Your task to perform on an android device: open the mobile data screen to see how much data has been used Image 0: 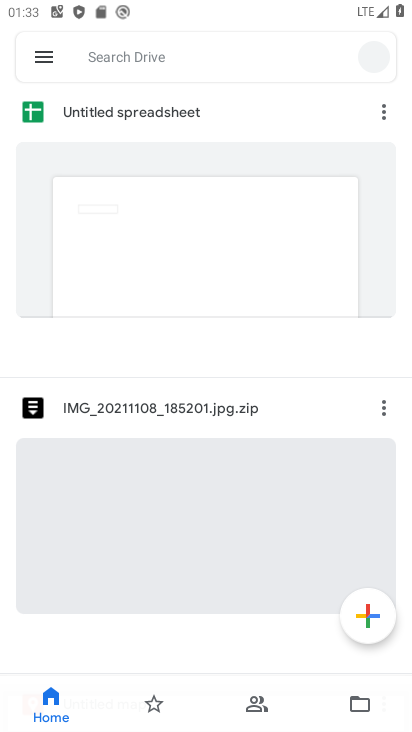
Step 0: press home button
Your task to perform on an android device: open the mobile data screen to see how much data has been used Image 1: 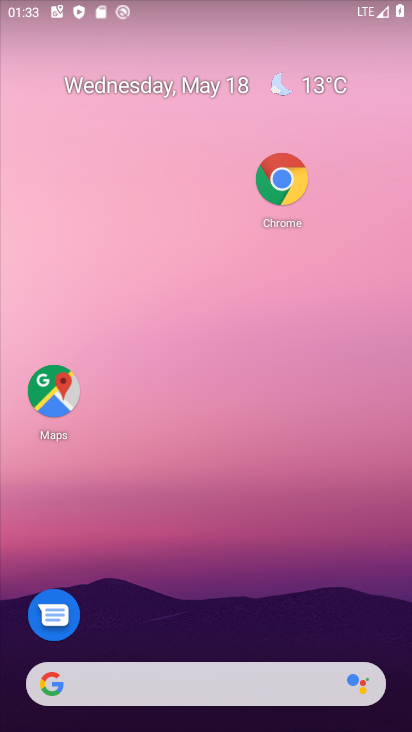
Step 1: drag from (151, 686) to (279, 291)
Your task to perform on an android device: open the mobile data screen to see how much data has been used Image 2: 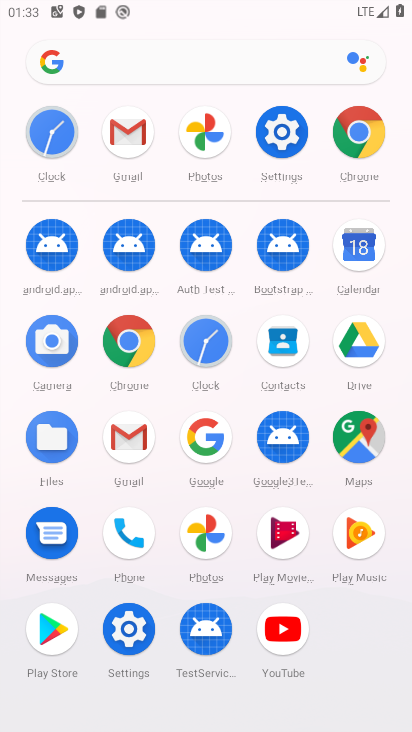
Step 2: click (279, 133)
Your task to perform on an android device: open the mobile data screen to see how much data has been used Image 3: 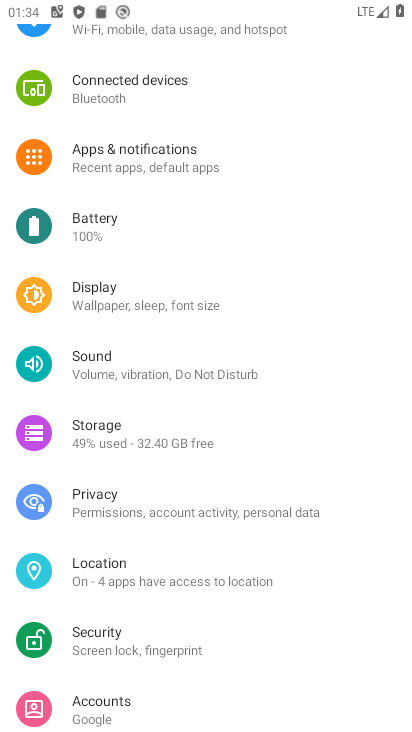
Step 3: drag from (307, 105) to (175, 553)
Your task to perform on an android device: open the mobile data screen to see how much data has been used Image 4: 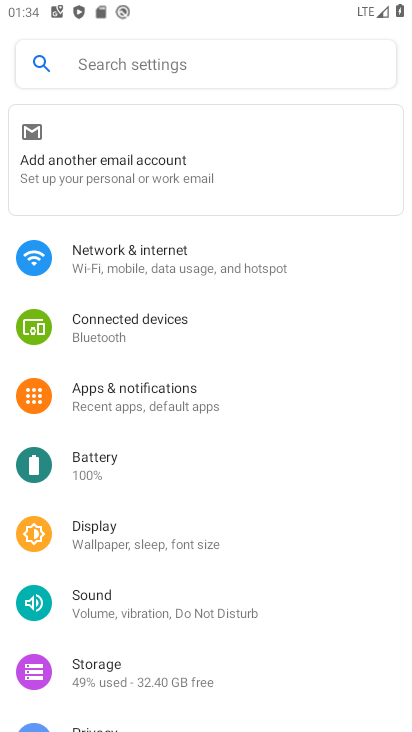
Step 4: click (163, 260)
Your task to perform on an android device: open the mobile data screen to see how much data has been used Image 5: 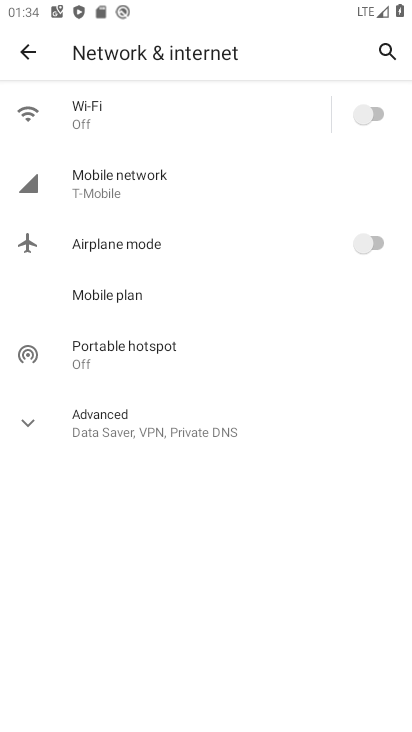
Step 5: click (124, 177)
Your task to perform on an android device: open the mobile data screen to see how much data has been used Image 6: 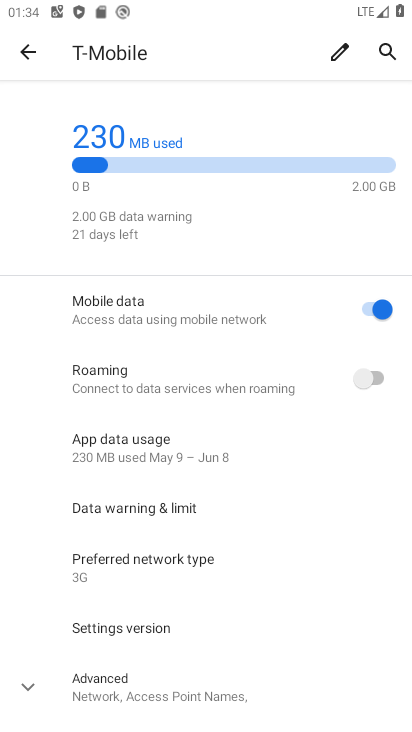
Step 6: task complete